Your task to perform on an android device: find snoozed emails in the gmail app Image 0: 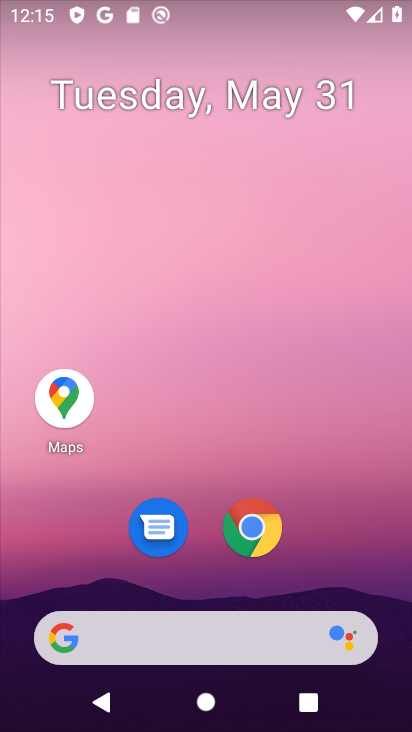
Step 0: drag from (260, 660) to (156, 175)
Your task to perform on an android device: find snoozed emails in the gmail app Image 1: 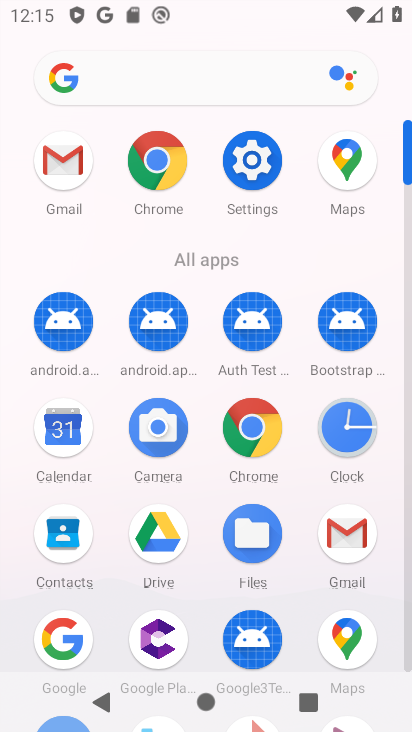
Step 1: click (335, 509)
Your task to perform on an android device: find snoozed emails in the gmail app Image 2: 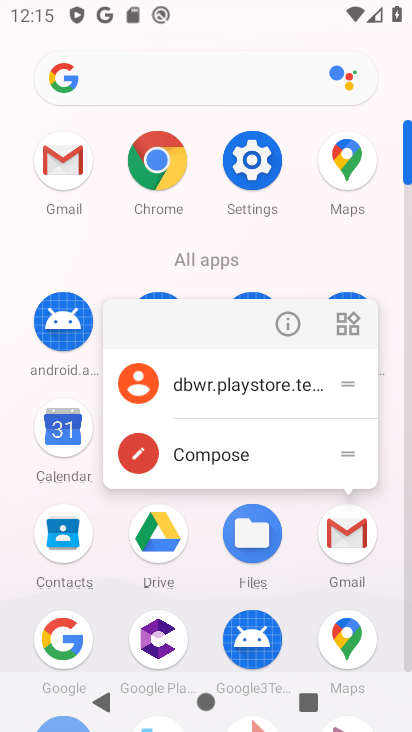
Step 2: click (220, 383)
Your task to perform on an android device: find snoozed emails in the gmail app Image 3: 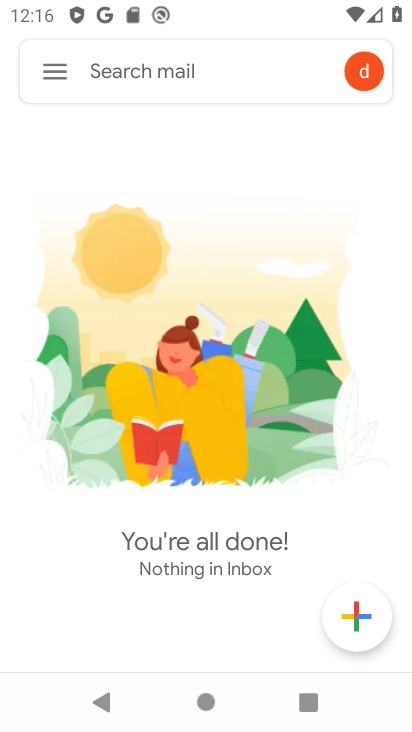
Step 3: click (63, 78)
Your task to perform on an android device: find snoozed emails in the gmail app Image 4: 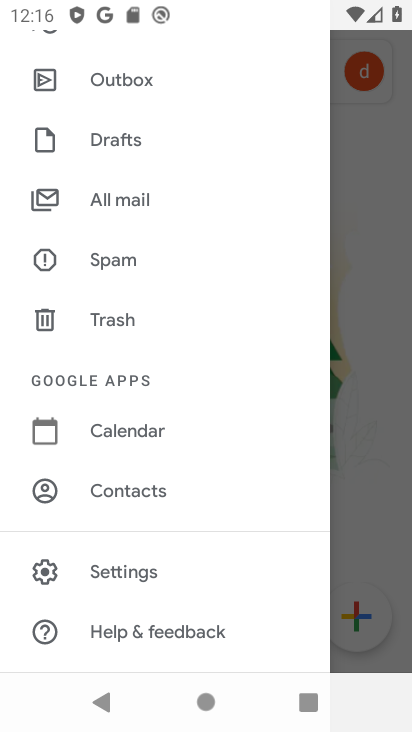
Step 4: drag from (95, 136) to (159, 459)
Your task to perform on an android device: find snoozed emails in the gmail app Image 5: 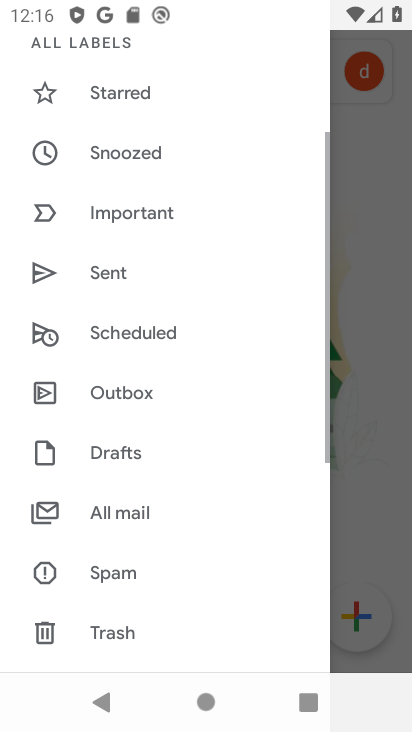
Step 5: drag from (116, 274) to (145, 461)
Your task to perform on an android device: find snoozed emails in the gmail app Image 6: 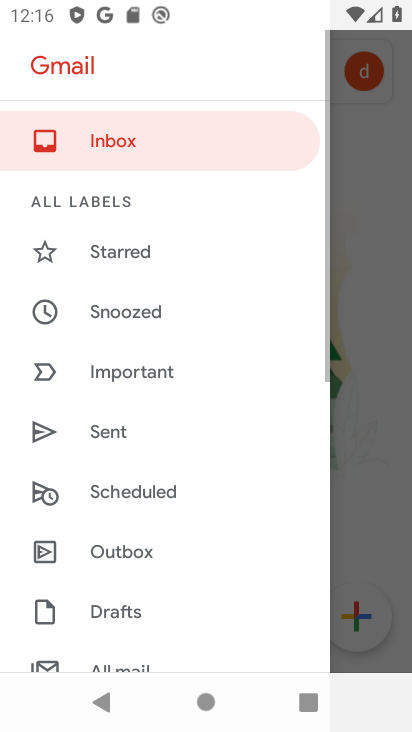
Step 6: click (112, 145)
Your task to perform on an android device: find snoozed emails in the gmail app Image 7: 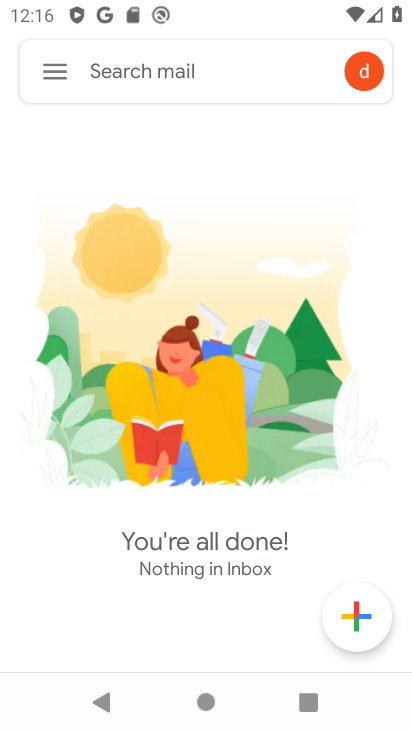
Step 7: click (60, 68)
Your task to perform on an android device: find snoozed emails in the gmail app Image 8: 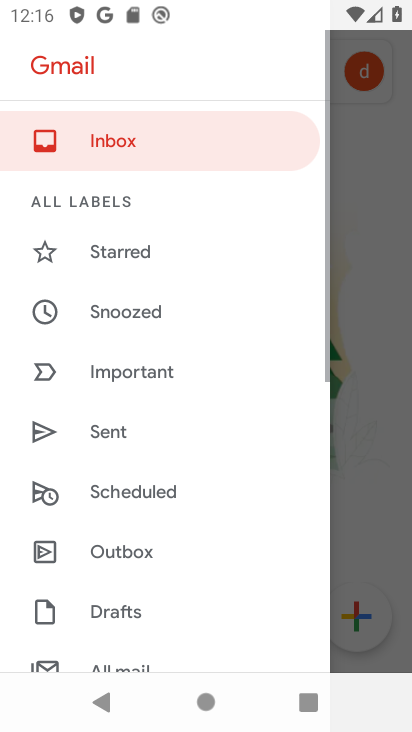
Step 8: click (131, 308)
Your task to perform on an android device: find snoozed emails in the gmail app Image 9: 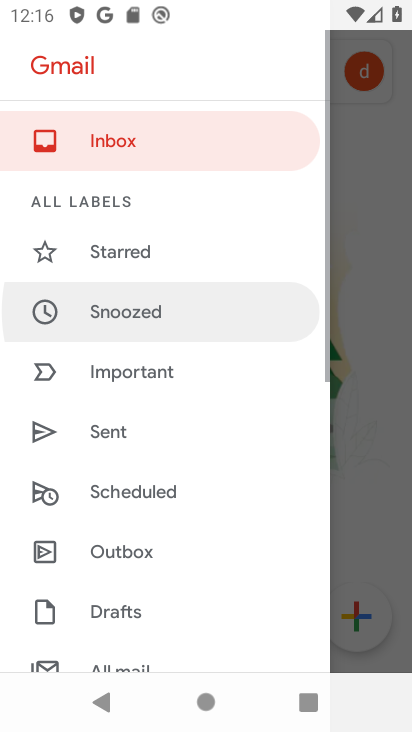
Step 9: click (131, 308)
Your task to perform on an android device: find snoozed emails in the gmail app Image 10: 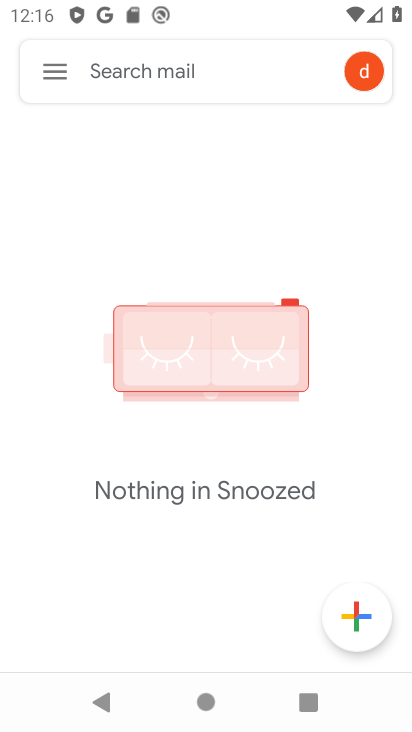
Step 10: task complete